Your task to perform on an android device: open the mobile data screen to see how much data has been used Image 0: 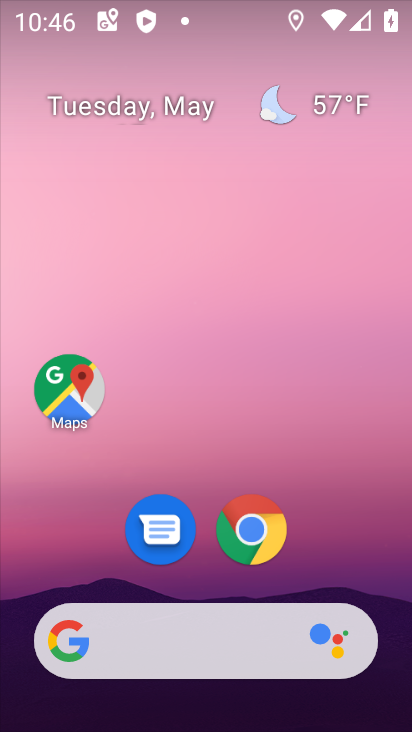
Step 0: drag from (245, 5) to (257, 668)
Your task to perform on an android device: open the mobile data screen to see how much data has been used Image 1: 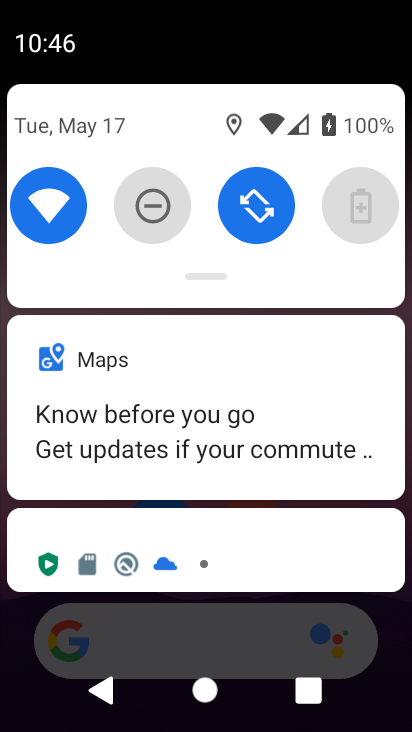
Step 1: drag from (202, 144) to (136, 719)
Your task to perform on an android device: open the mobile data screen to see how much data has been used Image 2: 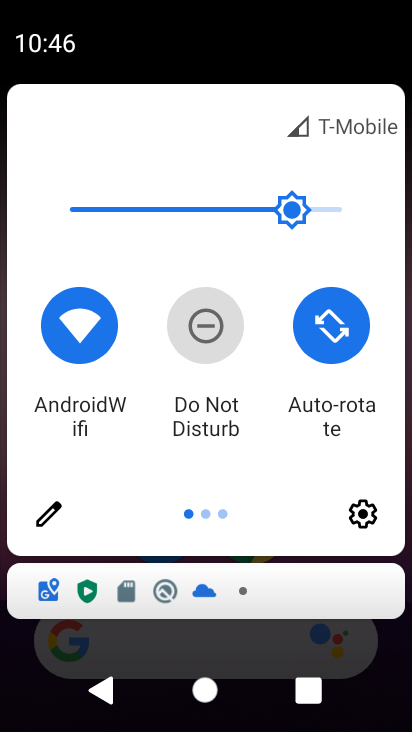
Step 2: drag from (365, 477) to (35, 478)
Your task to perform on an android device: open the mobile data screen to see how much data has been used Image 3: 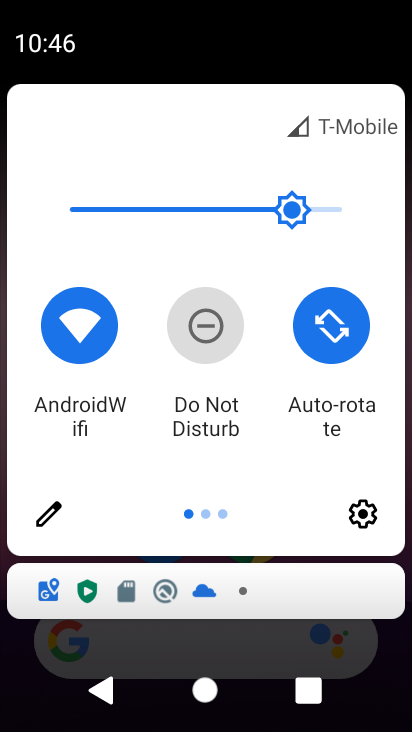
Step 3: drag from (384, 436) to (51, 428)
Your task to perform on an android device: open the mobile data screen to see how much data has been used Image 4: 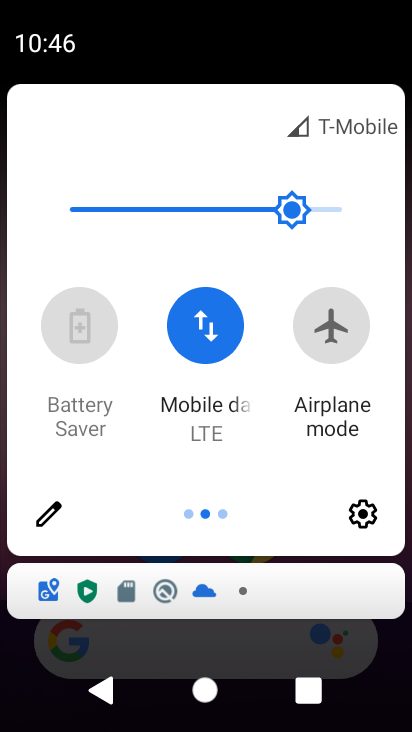
Step 4: click (211, 327)
Your task to perform on an android device: open the mobile data screen to see how much data has been used Image 5: 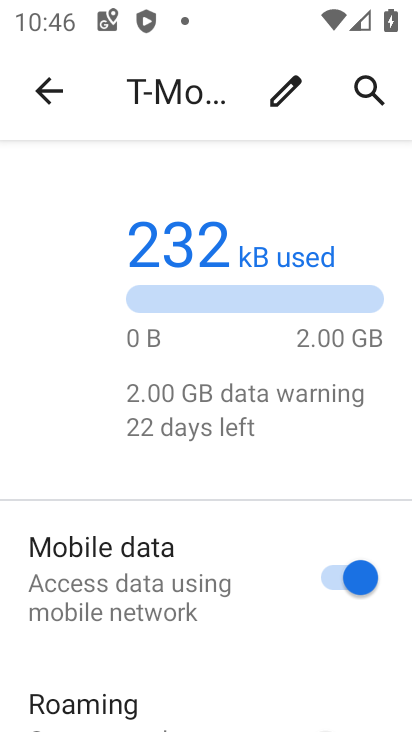
Step 5: task complete